Your task to perform on an android device: empty trash in the gmail app Image 0: 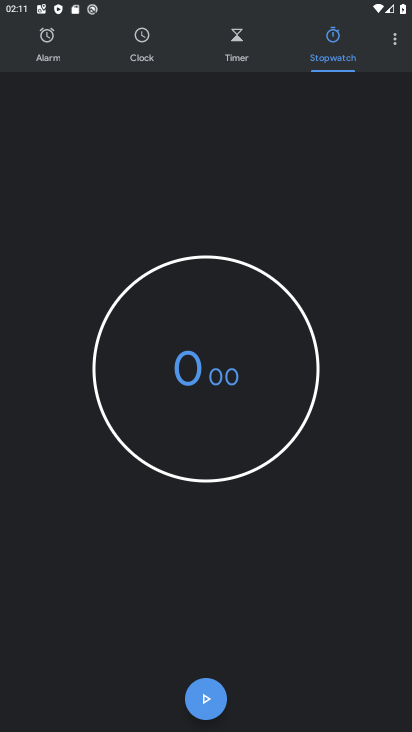
Step 0: press home button
Your task to perform on an android device: empty trash in the gmail app Image 1: 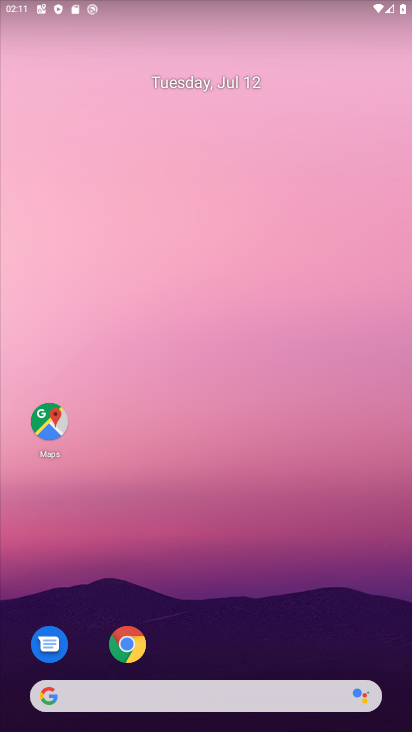
Step 1: drag from (223, 664) to (165, 90)
Your task to perform on an android device: empty trash in the gmail app Image 2: 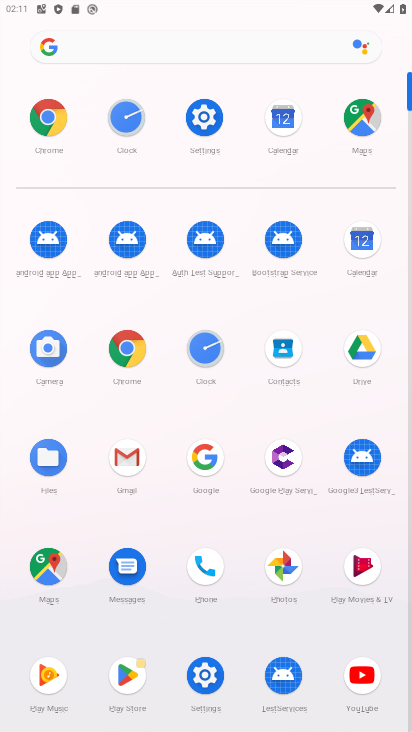
Step 2: click (117, 461)
Your task to perform on an android device: empty trash in the gmail app Image 3: 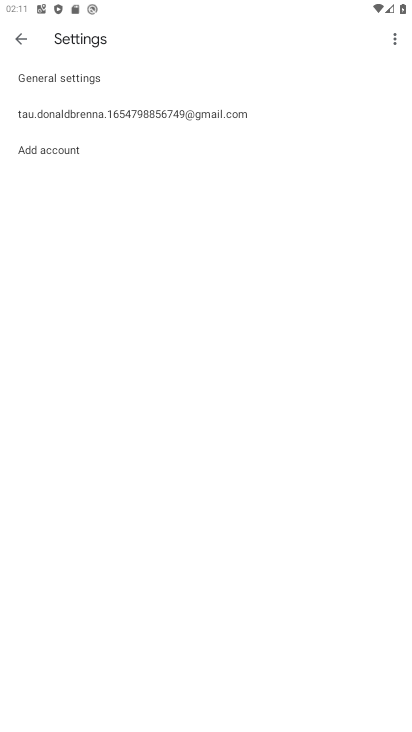
Step 3: click (14, 41)
Your task to perform on an android device: empty trash in the gmail app Image 4: 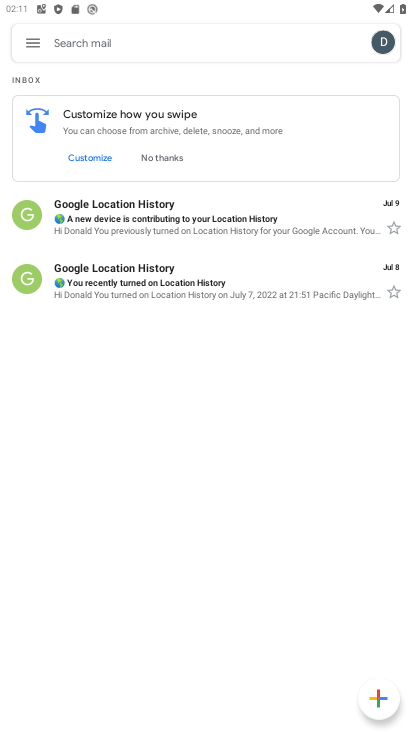
Step 4: drag from (14, 41) to (45, 266)
Your task to perform on an android device: empty trash in the gmail app Image 5: 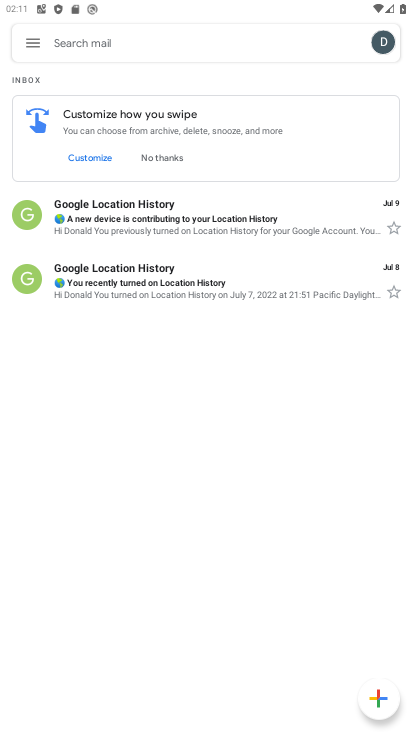
Step 5: drag from (29, 43) to (61, 417)
Your task to perform on an android device: empty trash in the gmail app Image 6: 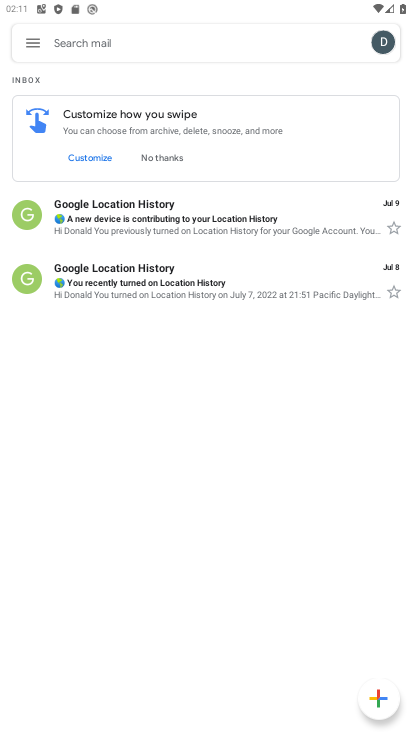
Step 6: click (17, 42)
Your task to perform on an android device: empty trash in the gmail app Image 7: 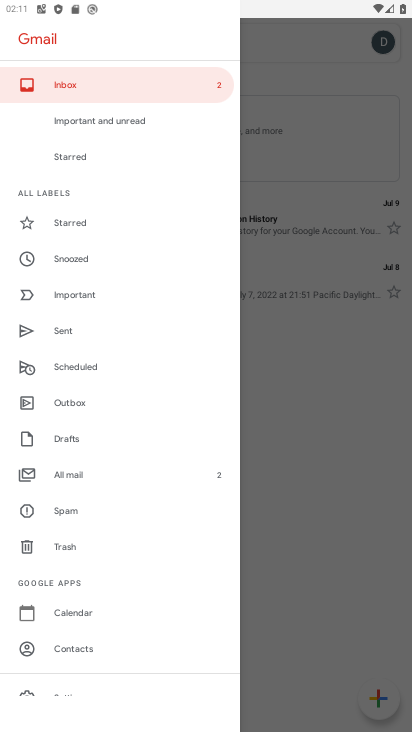
Step 7: click (78, 549)
Your task to perform on an android device: empty trash in the gmail app Image 8: 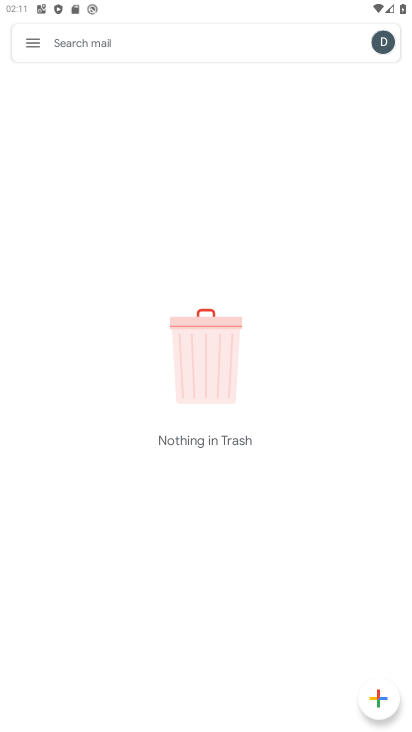
Step 8: task complete